Your task to perform on an android device: toggle notification dots Image 0: 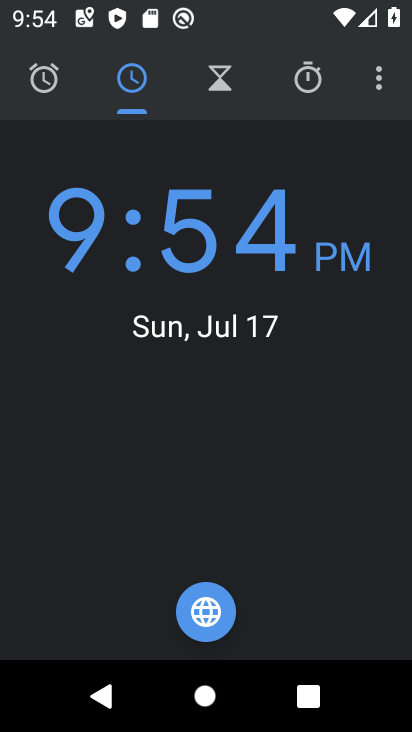
Step 0: press back button
Your task to perform on an android device: toggle notification dots Image 1: 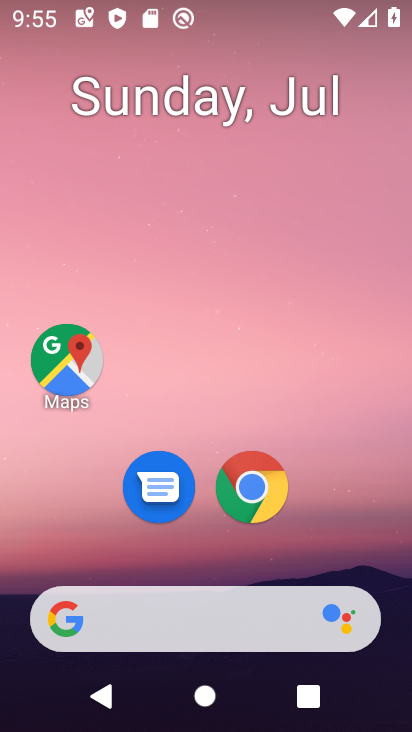
Step 1: drag from (123, 564) to (210, 1)
Your task to perform on an android device: toggle notification dots Image 2: 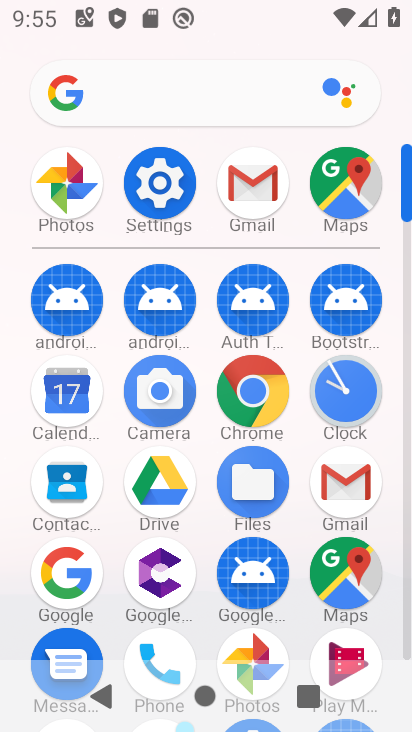
Step 2: click (147, 195)
Your task to perform on an android device: toggle notification dots Image 3: 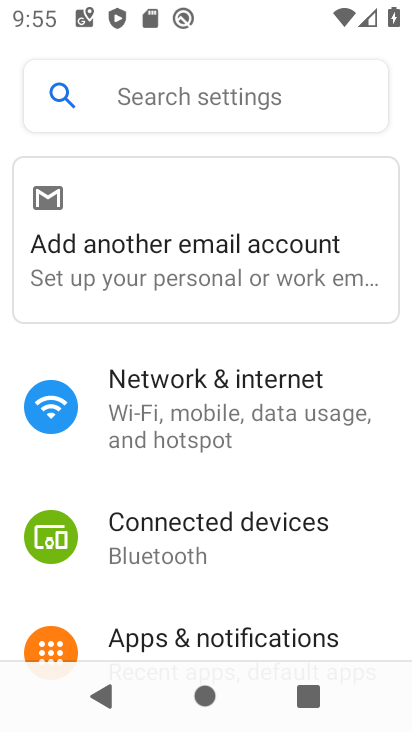
Step 3: click (212, 633)
Your task to perform on an android device: toggle notification dots Image 4: 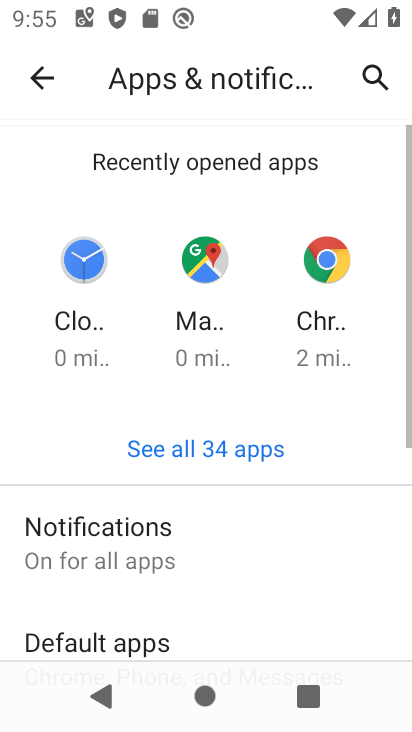
Step 4: click (143, 532)
Your task to perform on an android device: toggle notification dots Image 5: 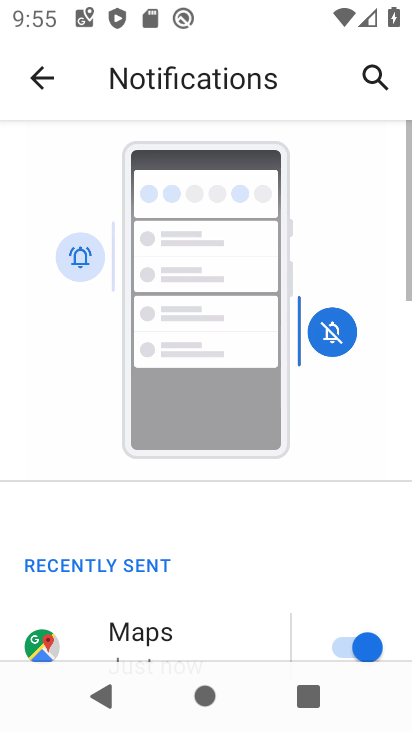
Step 5: drag from (149, 550) to (251, 119)
Your task to perform on an android device: toggle notification dots Image 6: 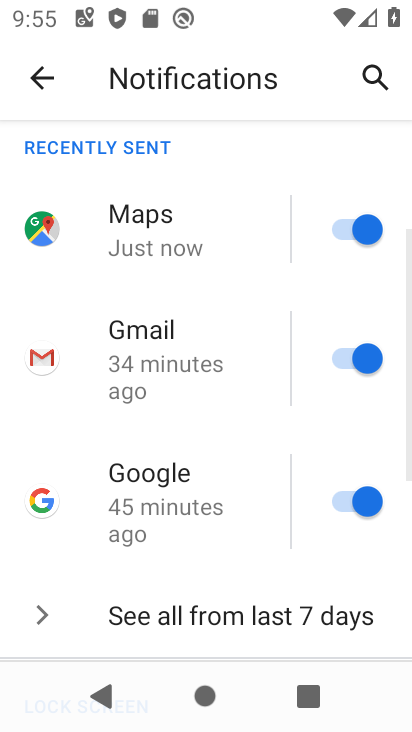
Step 6: drag from (180, 585) to (247, 80)
Your task to perform on an android device: toggle notification dots Image 7: 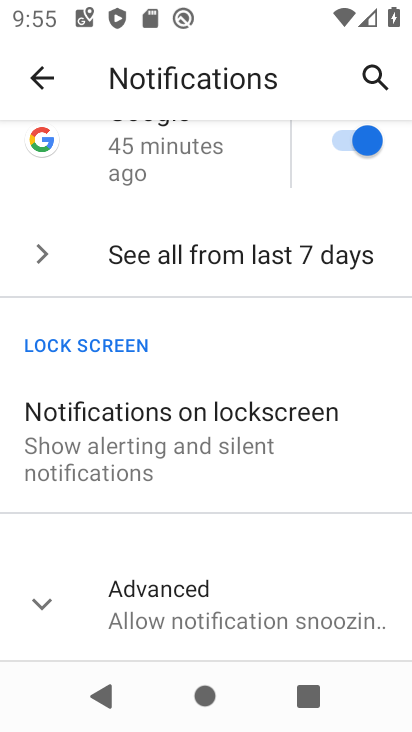
Step 7: click (183, 596)
Your task to perform on an android device: toggle notification dots Image 8: 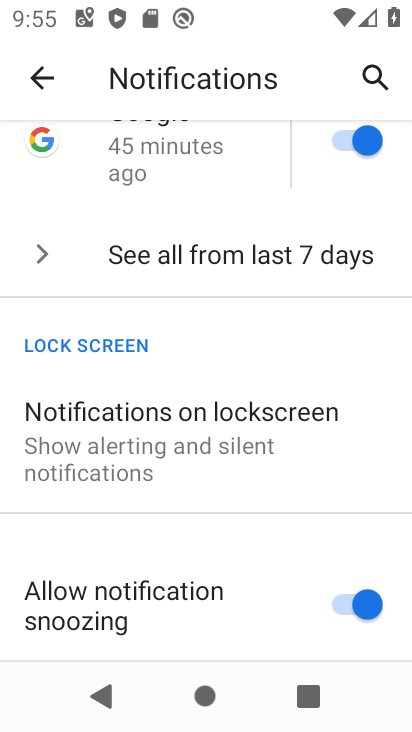
Step 8: drag from (195, 606) to (230, 185)
Your task to perform on an android device: toggle notification dots Image 9: 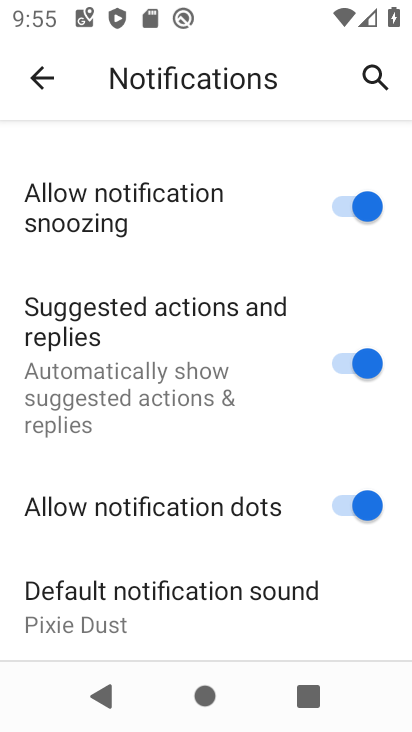
Step 9: click (362, 511)
Your task to perform on an android device: toggle notification dots Image 10: 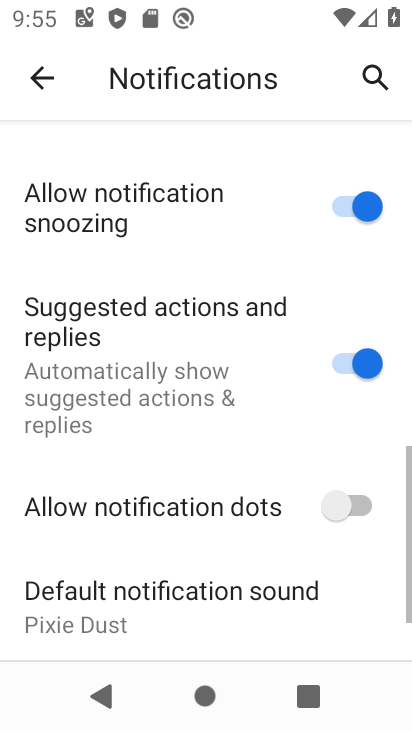
Step 10: task complete